Your task to perform on an android device: Do I have any events today? Image 0: 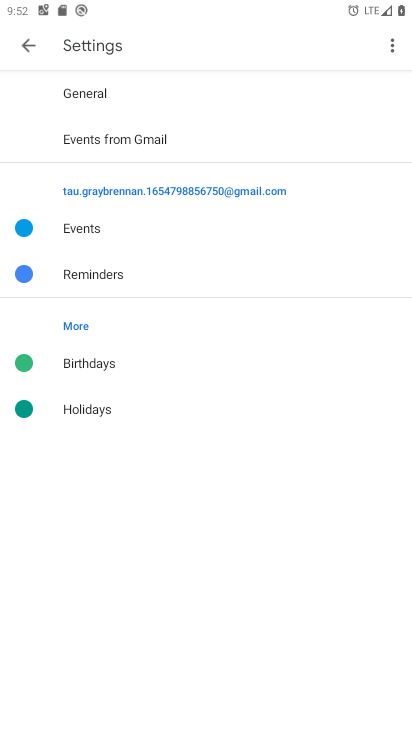
Step 0: press home button
Your task to perform on an android device: Do I have any events today? Image 1: 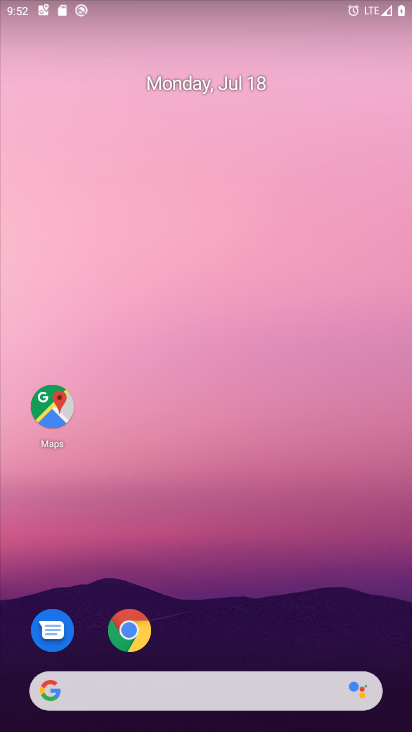
Step 1: drag from (227, 628) to (249, 234)
Your task to perform on an android device: Do I have any events today? Image 2: 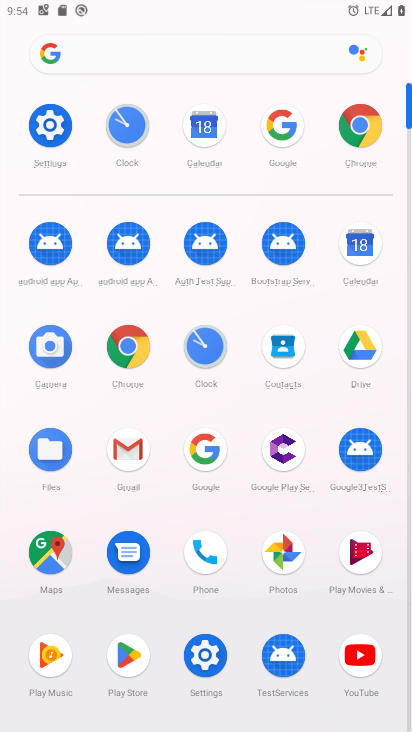
Step 2: click (220, 136)
Your task to perform on an android device: Do I have any events today? Image 3: 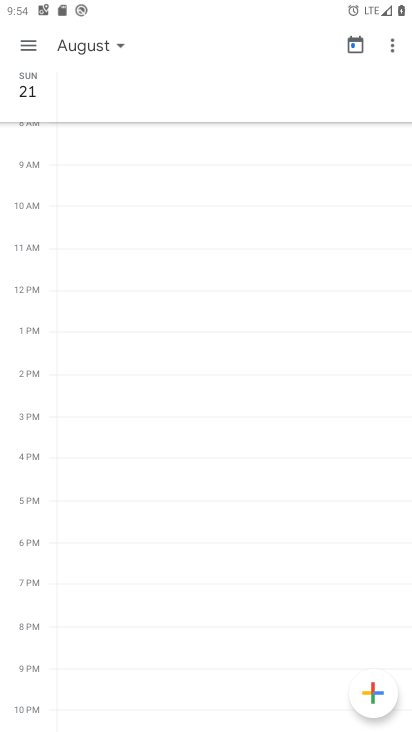
Step 3: click (114, 44)
Your task to perform on an android device: Do I have any events today? Image 4: 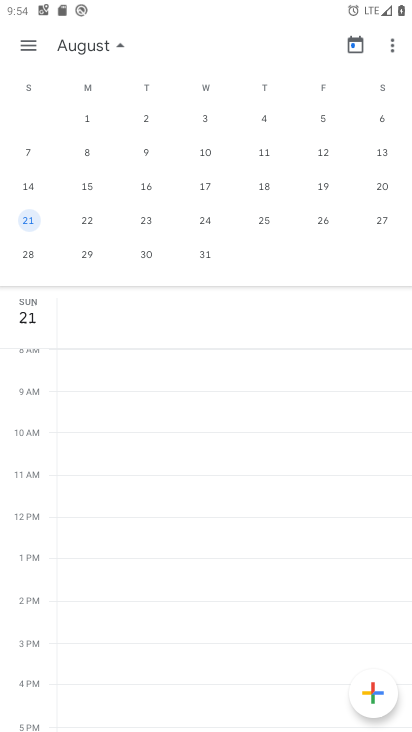
Step 4: task complete